Your task to perform on an android device: Open eBay Image 0: 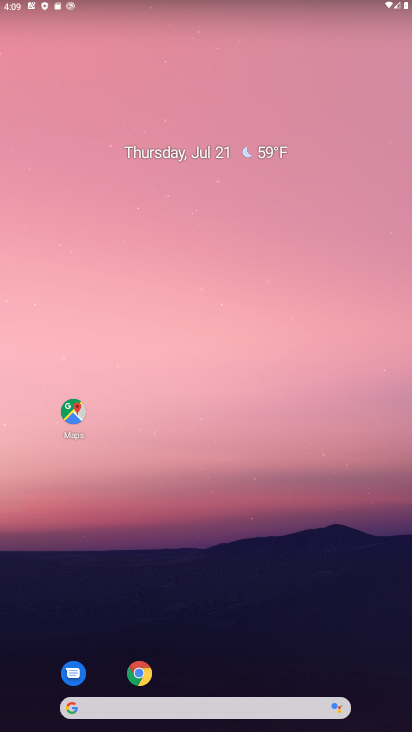
Step 0: click (140, 674)
Your task to perform on an android device: Open eBay Image 1: 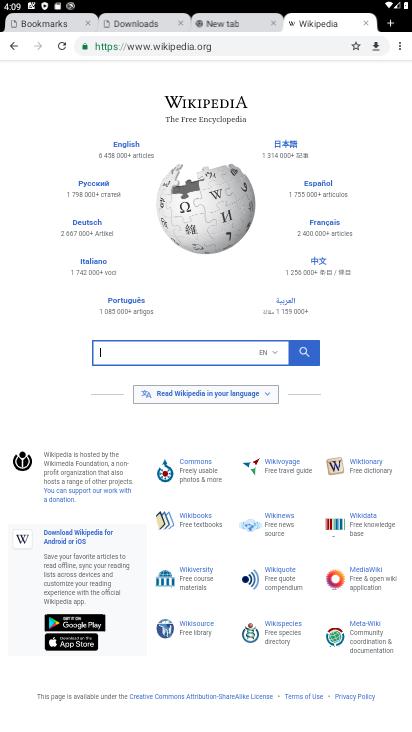
Step 1: click (251, 45)
Your task to perform on an android device: Open eBay Image 2: 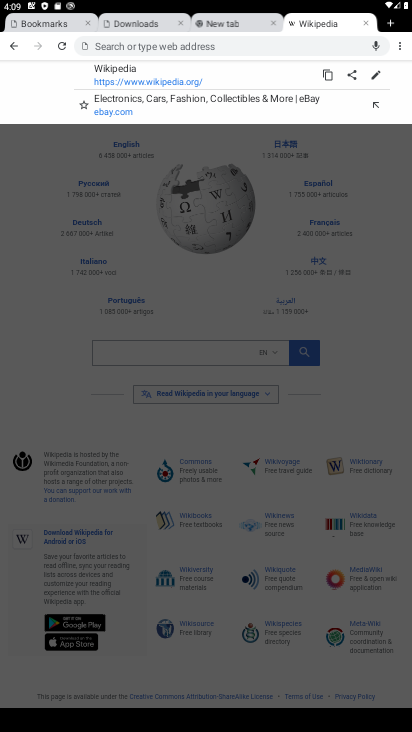
Step 2: type "ebay"
Your task to perform on an android device: Open eBay Image 3: 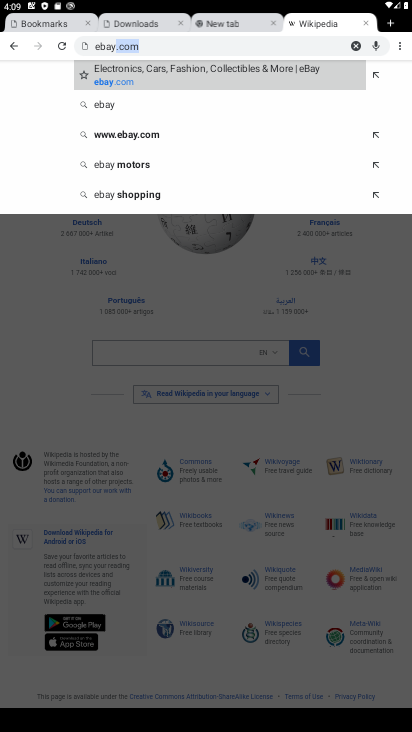
Step 3: click (120, 68)
Your task to perform on an android device: Open eBay Image 4: 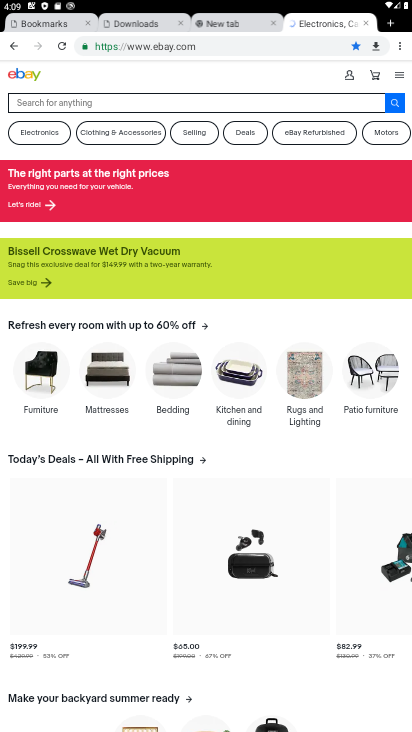
Step 4: task complete